Your task to perform on an android device: check out phone information Image 0: 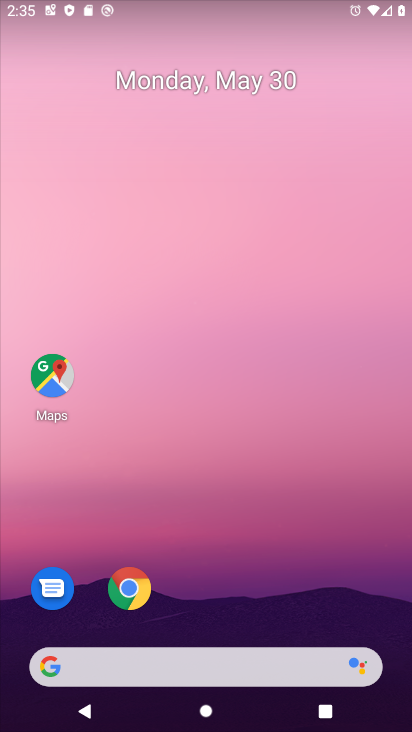
Step 0: press home button
Your task to perform on an android device: check out phone information Image 1: 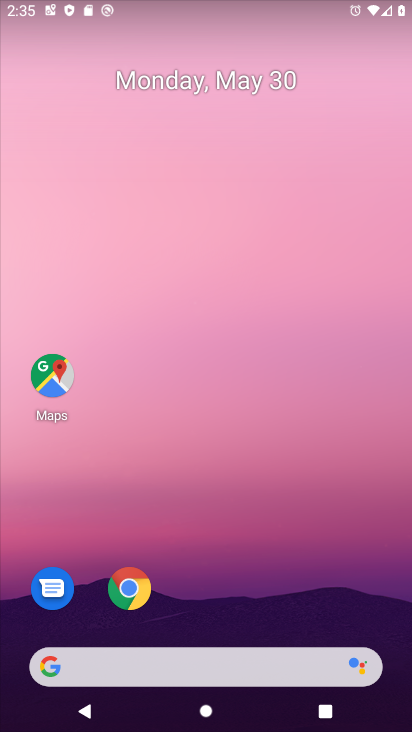
Step 1: press home button
Your task to perform on an android device: check out phone information Image 2: 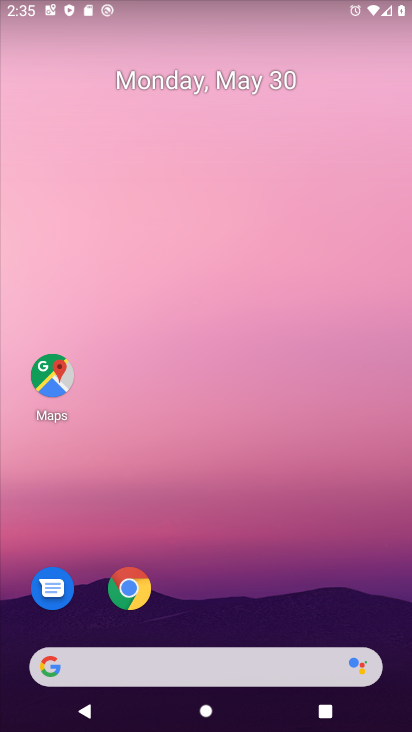
Step 2: drag from (311, 571) to (311, 176)
Your task to perform on an android device: check out phone information Image 3: 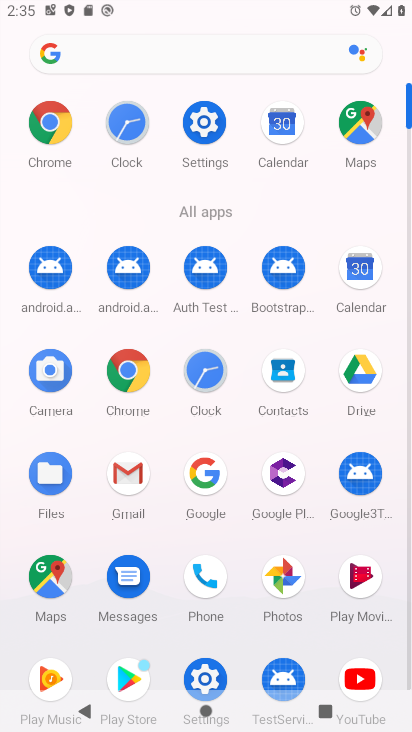
Step 3: drag from (251, 648) to (227, 508)
Your task to perform on an android device: check out phone information Image 4: 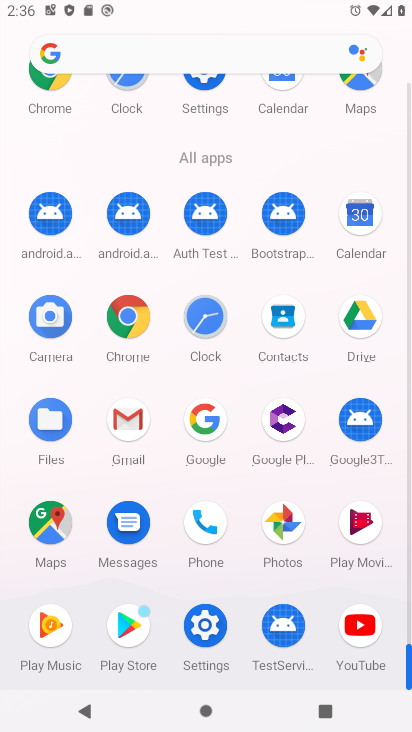
Step 4: click (194, 629)
Your task to perform on an android device: check out phone information Image 5: 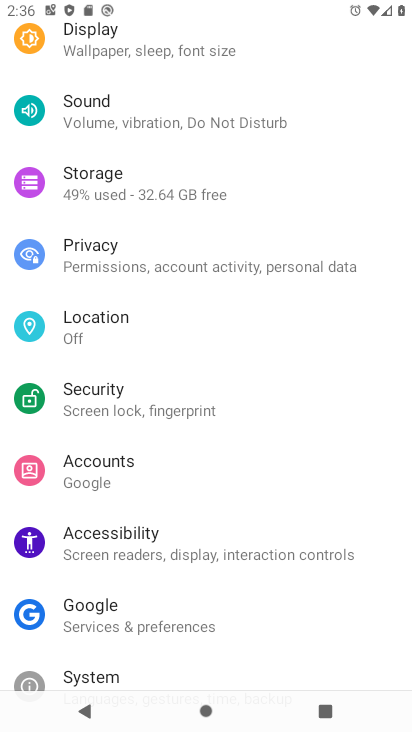
Step 5: drag from (295, 615) to (258, 174)
Your task to perform on an android device: check out phone information Image 6: 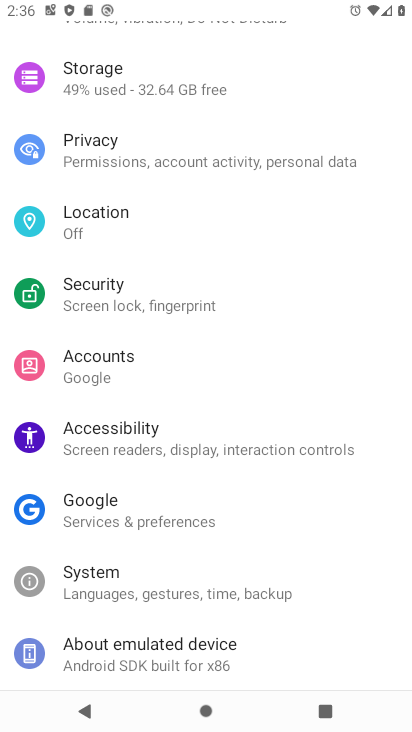
Step 6: click (217, 646)
Your task to perform on an android device: check out phone information Image 7: 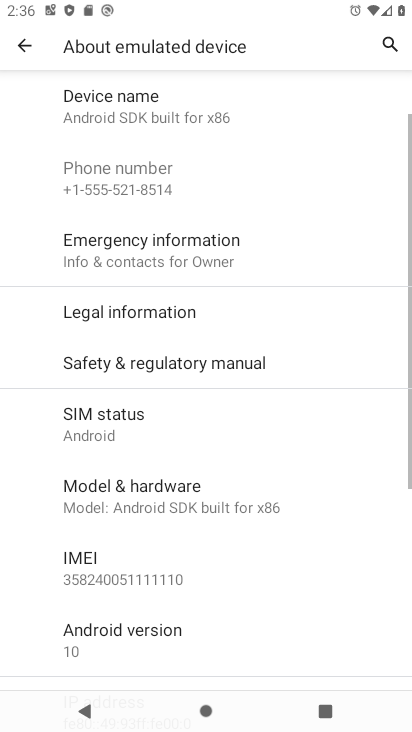
Step 7: task complete